Your task to perform on an android device: Go to Google maps Image 0: 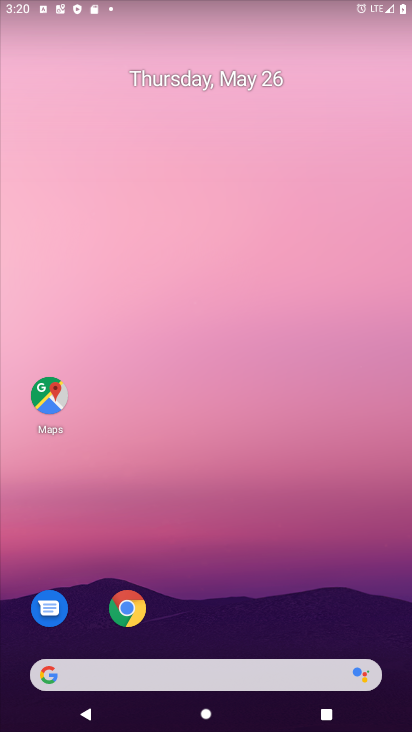
Step 0: click (51, 400)
Your task to perform on an android device: Go to Google maps Image 1: 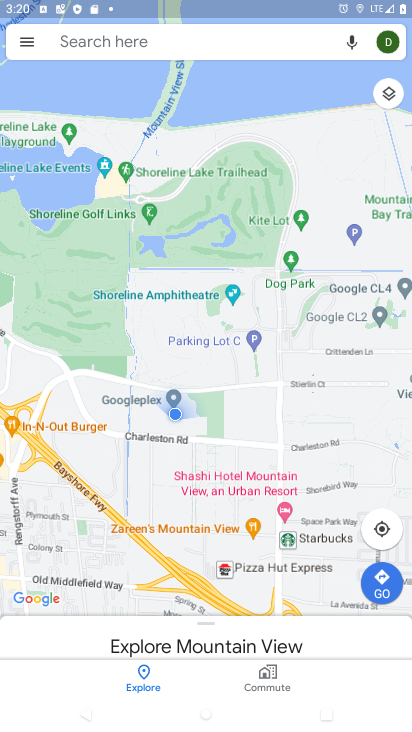
Step 1: task complete